Your task to perform on an android device: change the clock style Image 0: 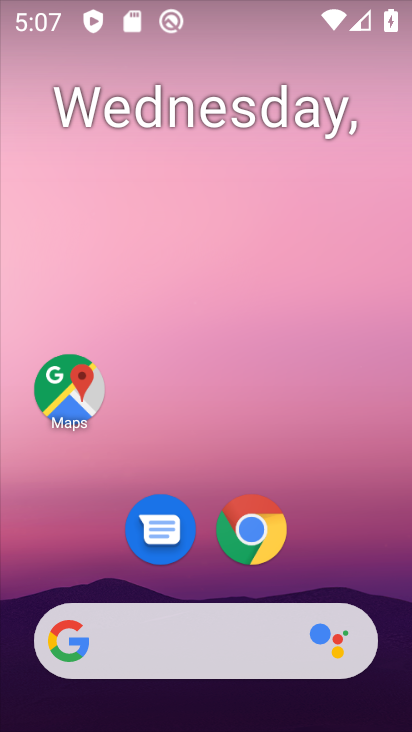
Step 0: drag from (323, 535) to (295, 31)
Your task to perform on an android device: change the clock style Image 1: 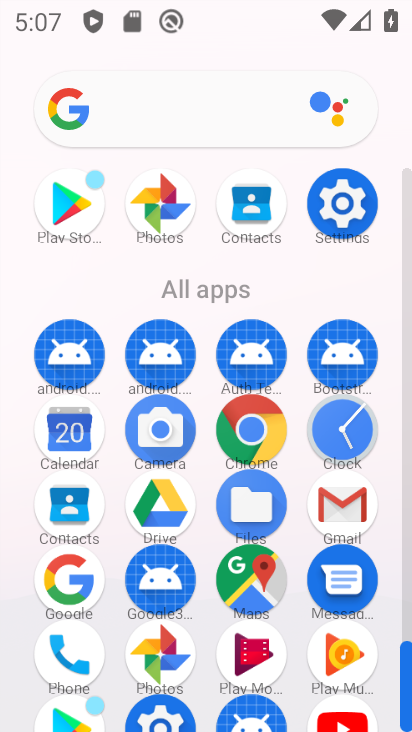
Step 1: drag from (16, 653) to (19, 273)
Your task to perform on an android device: change the clock style Image 2: 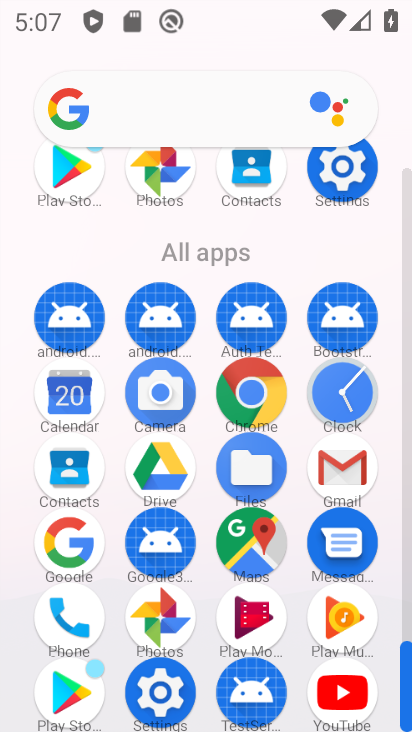
Step 2: drag from (5, 577) to (17, 319)
Your task to perform on an android device: change the clock style Image 3: 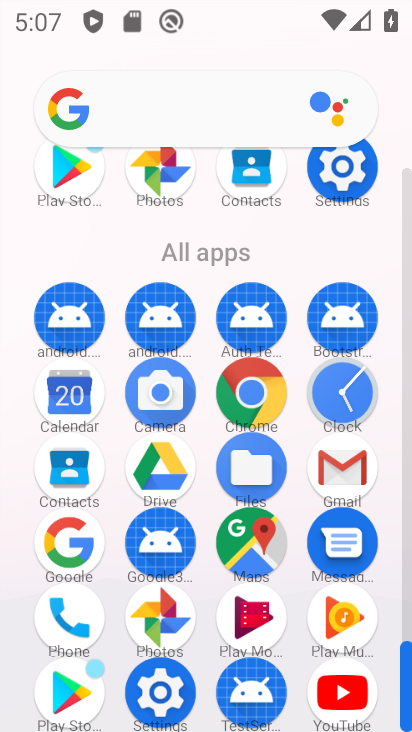
Step 3: click (0, 450)
Your task to perform on an android device: change the clock style Image 4: 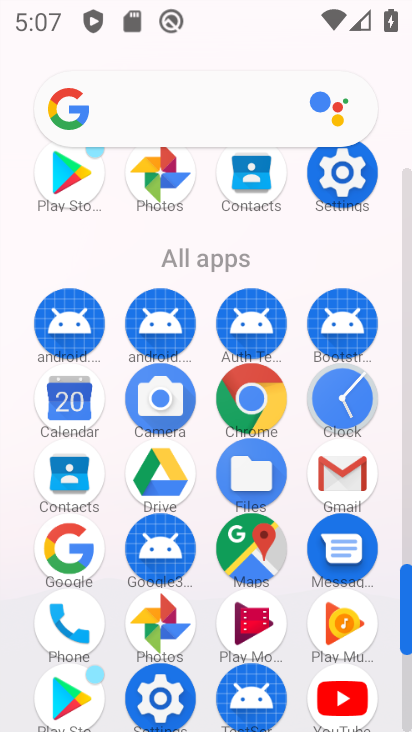
Step 4: drag from (18, 294) to (17, 482)
Your task to perform on an android device: change the clock style Image 5: 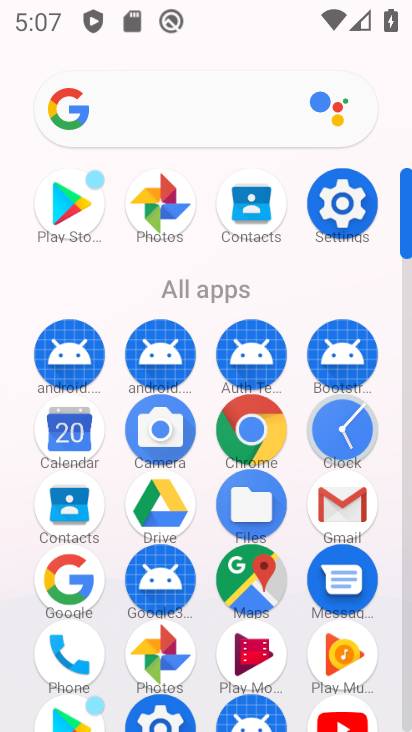
Step 5: drag from (6, 458) to (6, 236)
Your task to perform on an android device: change the clock style Image 6: 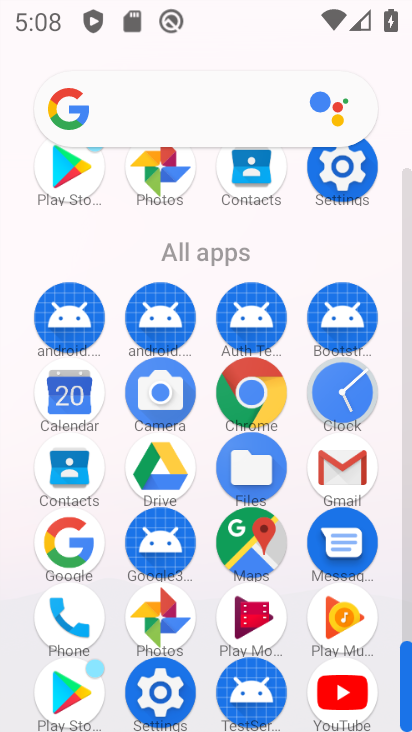
Step 6: click (341, 388)
Your task to perform on an android device: change the clock style Image 7: 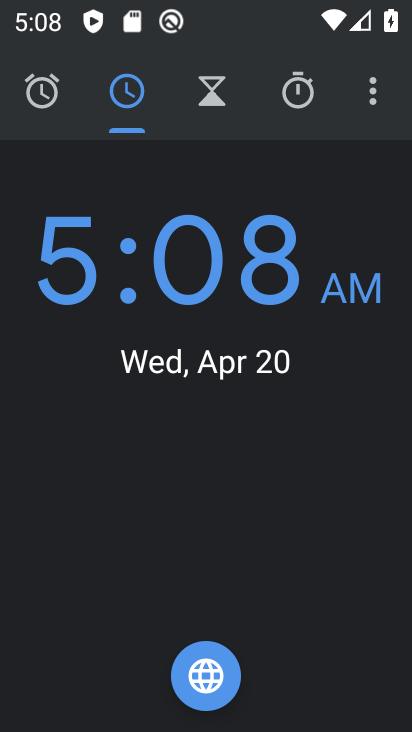
Step 7: click (367, 93)
Your task to perform on an android device: change the clock style Image 8: 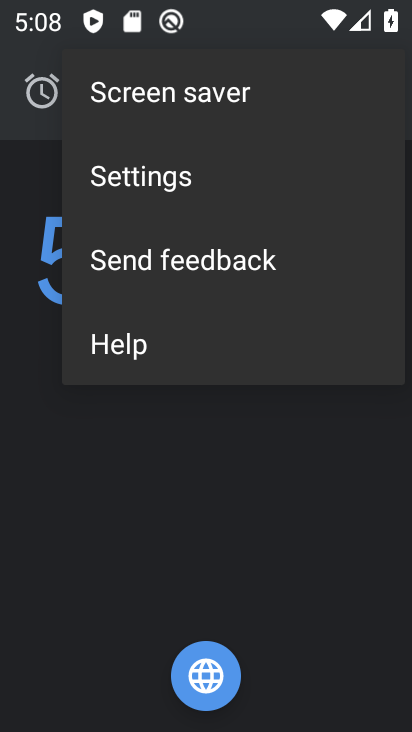
Step 8: click (226, 167)
Your task to perform on an android device: change the clock style Image 9: 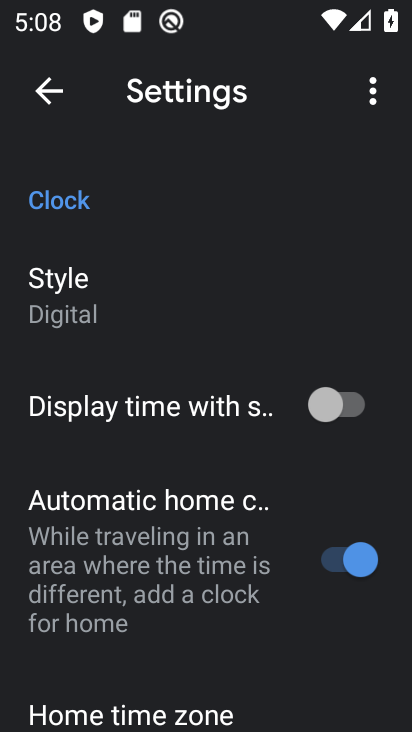
Step 9: click (110, 301)
Your task to perform on an android device: change the clock style Image 10: 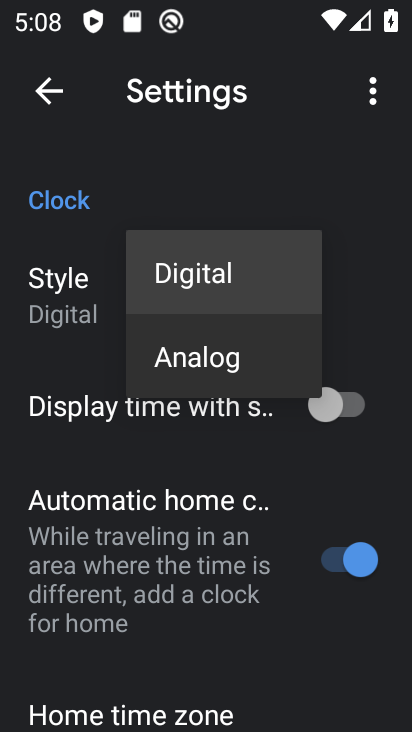
Step 10: click (156, 340)
Your task to perform on an android device: change the clock style Image 11: 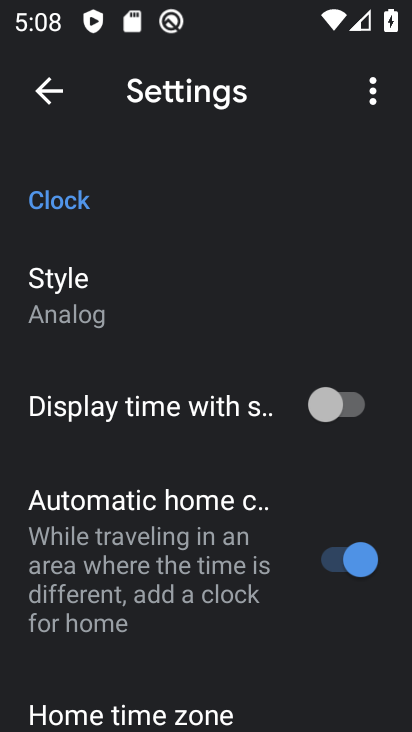
Step 11: task complete